Your task to perform on an android device: Open settings Image 0: 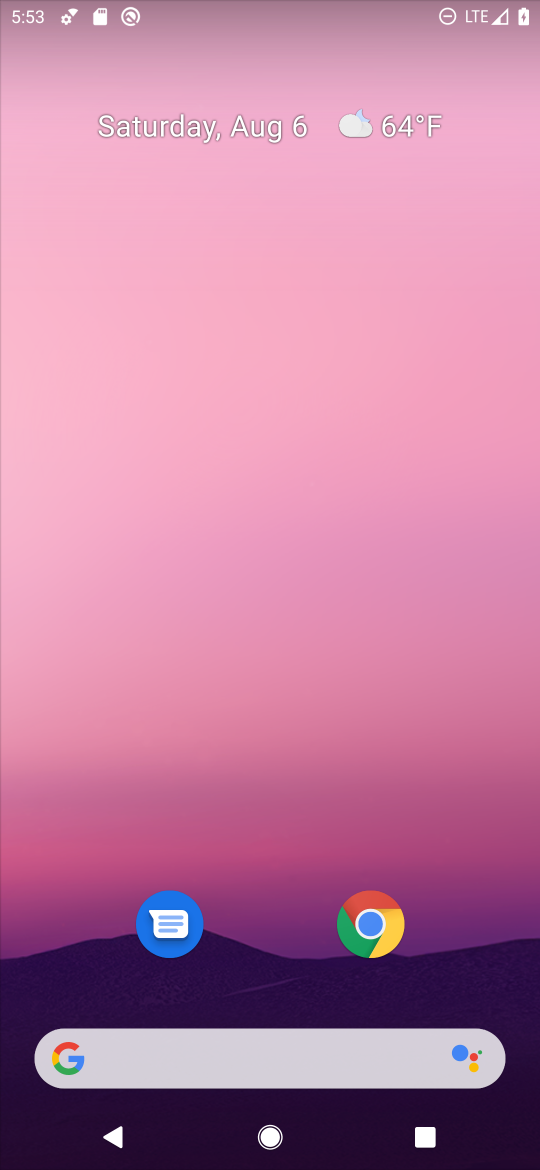
Step 0: drag from (255, 830) to (254, 165)
Your task to perform on an android device: Open settings Image 1: 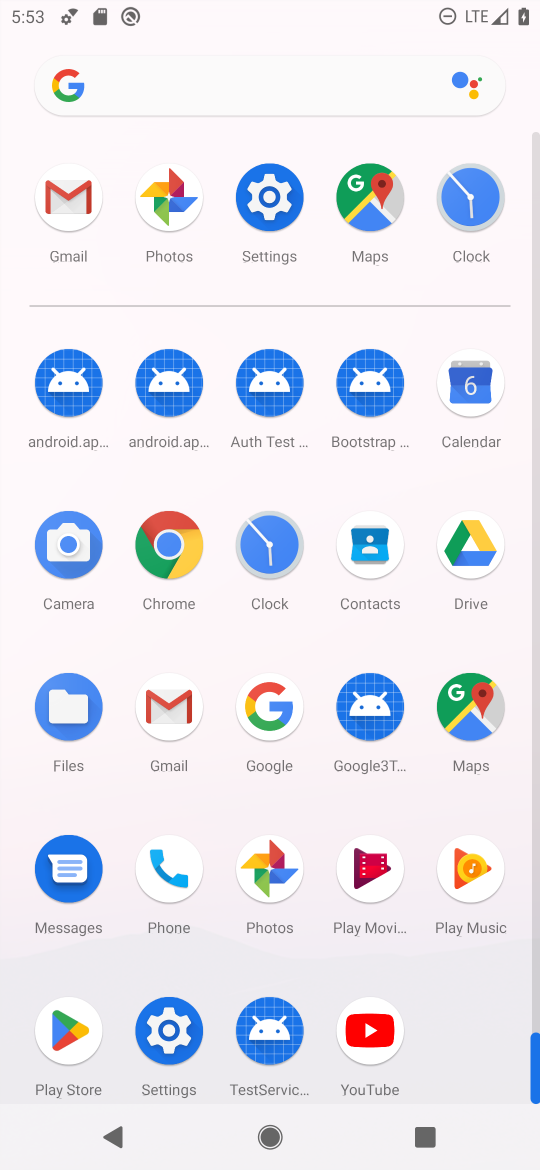
Step 1: click (271, 197)
Your task to perform on an android device: Open settings Image 2: 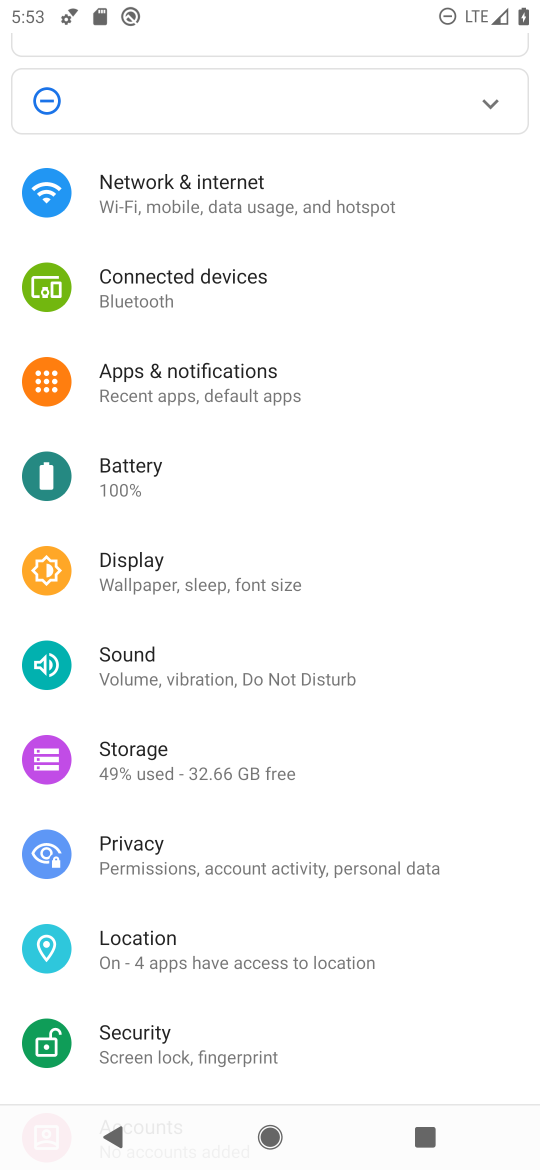
Step 2: task complete